Your task to perform on an android device: open app "Nova Launcher" Image 0: 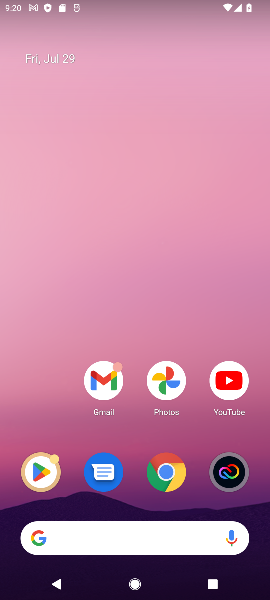
Step 0: drag from (218, 553) to (109, 224)
Your task to perform on an android device: open app "Nova Launcher" Image 1: 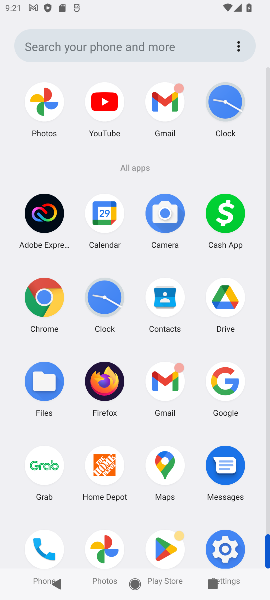
Step 1: drag from (128, 361) to (108, 171)
Your task to perform on an android device: open app "Nova Launcher" Image 2: 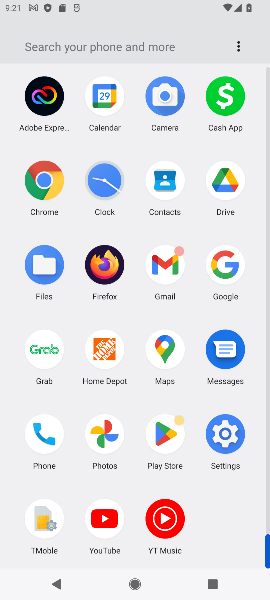
Step 2: drag from (161, 498) to (191, 301)
Your task to perform on an android device: open app "Nova Launcher" Image 3: 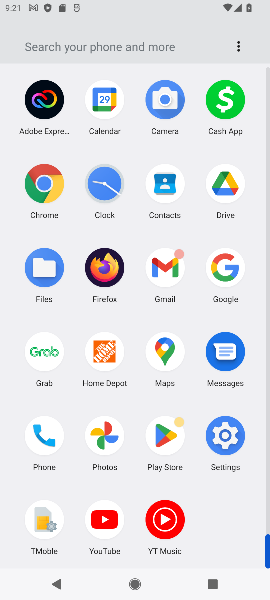
Step 3: click (163, 429)
Your task to perform on an android device: open app "Nova Launcher" Image 4: 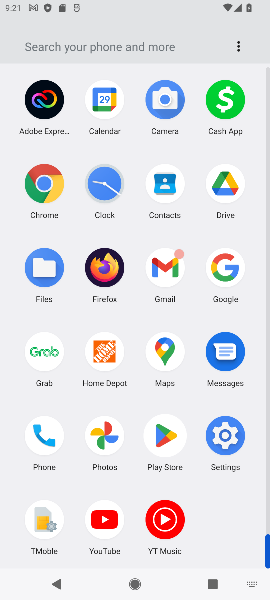
Step 4: click (163, 428)
Your task to perform on an android device: open app "Nova Launcher" Image 5: 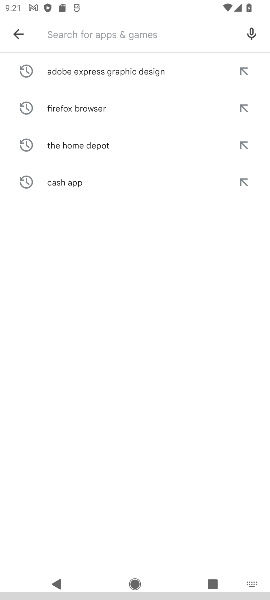
Step 5: click (163, 428)
Your task to perform on an android device: open app "Nova Launcher" Image 6: 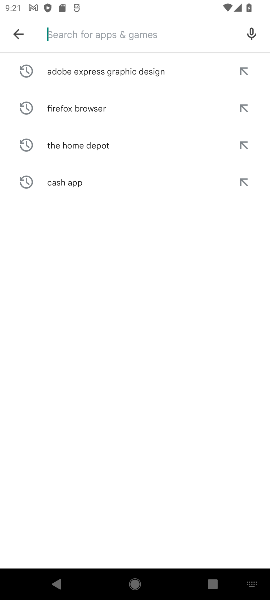
Step 6: type "Nova Launcher"
Your task to perform on an android device: open app "Nova Launcher" Image 7: 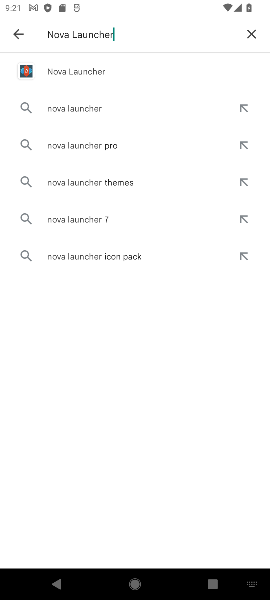
Step 7: click (88, 75)
Your task to perform on an android device: open app "Nova Launcher" Image 8: 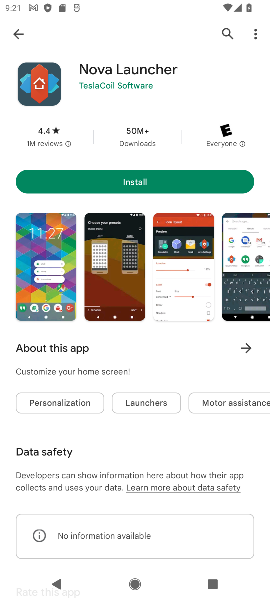
Step 8: click (170, 181)
Your task to perform on an android device: open app "Nova Launcher" Image 9: 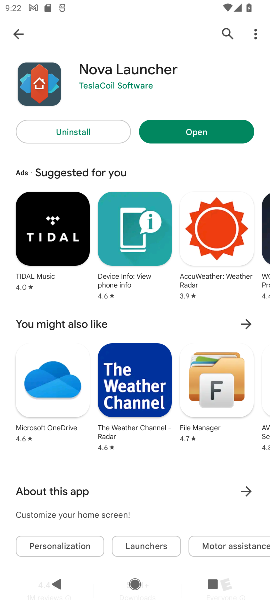
Step 9: click (188, 122)
Your task to perform on an android device: open app "Nova Launcher" Image 10: 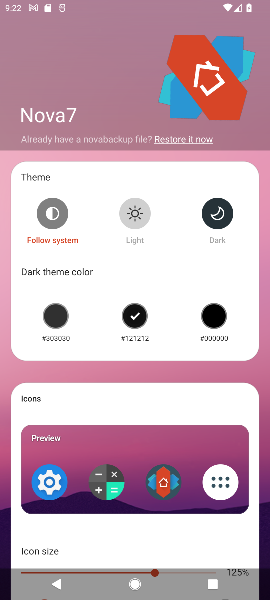
Step 10: task complete